Your task to perform on an android device: Go to CNN.com Image 0: 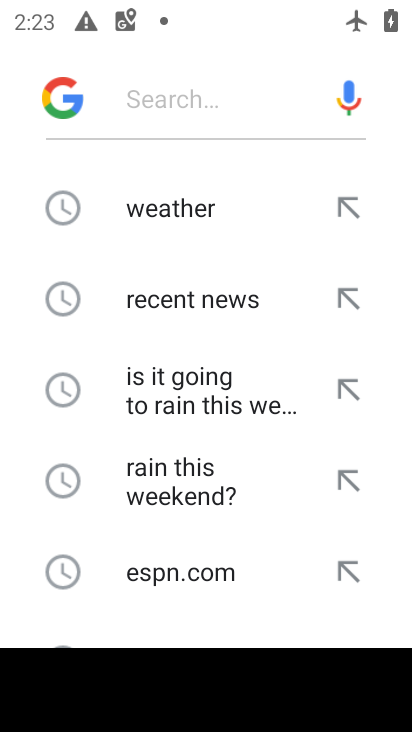
Step 0: press home button
Your task to perform on an android device: Go to CNN.com Image 1: 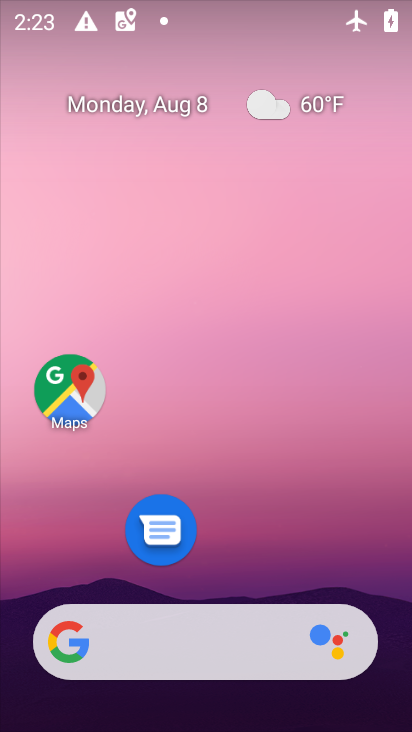
Step 1: drag from (235, 418) to (209, 115)
Your task to perform on an android device: Go to CNN.com Image 2: 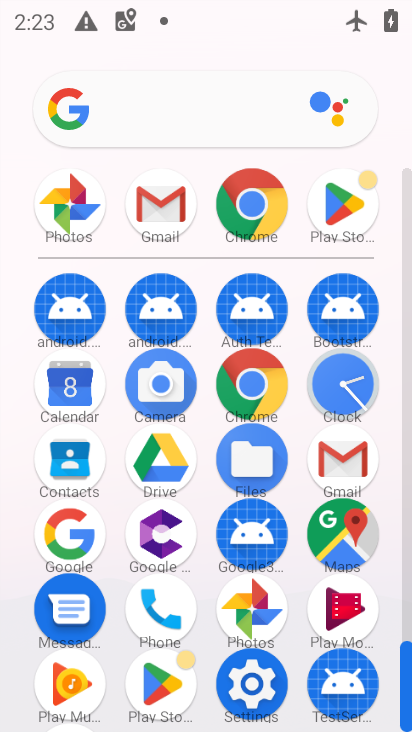
Step 2: click (262, 385)
Your task to perform on an android device: Go to CNN.com Image 3: 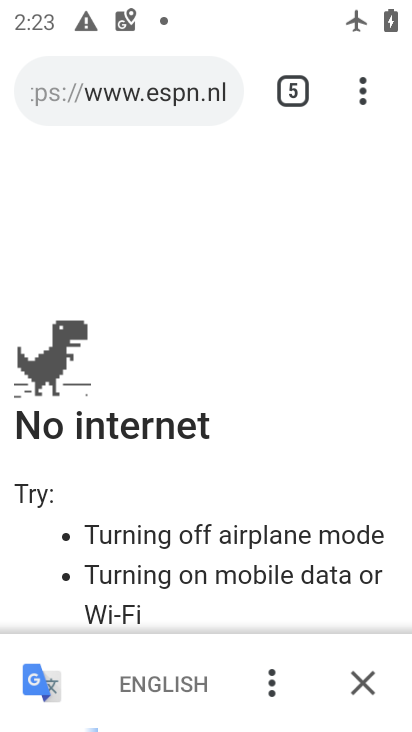
Step 3: drag from (359, 98) to (81, 170)
Your task to perform on an android device: Go to CNN.com Image 4: 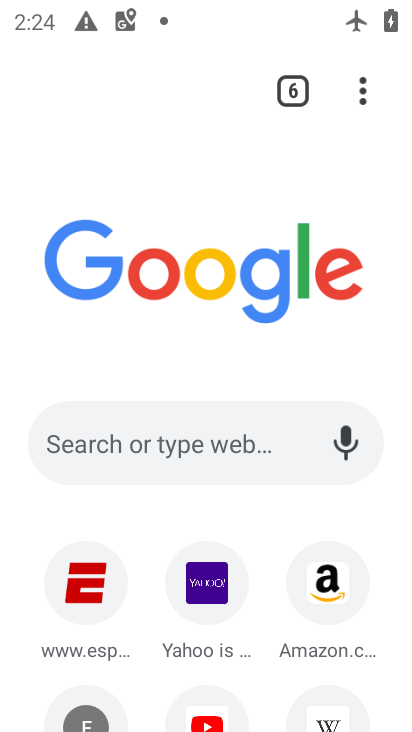
Step 4: drag from (212, 569) to (197, 216)
Your task to perform on an android device: Go to CNN.com Image 5: 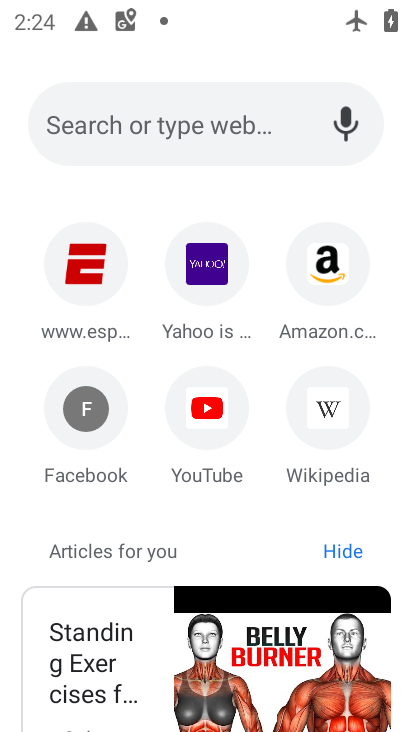
Step 5: click (226, 128)
Your task to perform on an android device: Go to CNN.com Image 6: 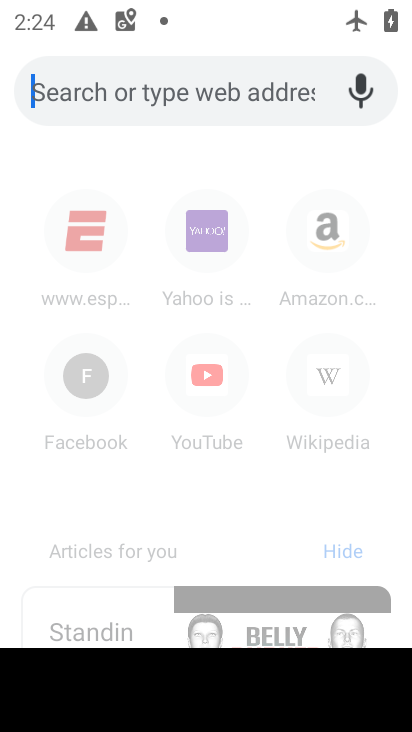
Step 6: type "CNN.com"
Your task to perform on an android device: Go to CNN.com Image 7: 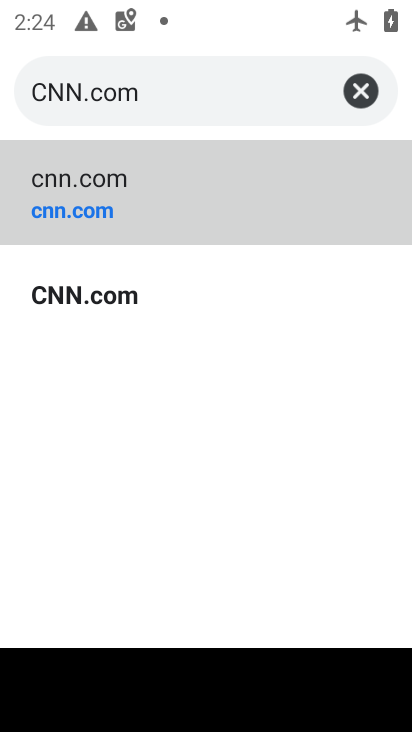
Step 7: click (68, 197)
Your task to perform on an android device: Go to CNN.com Image 8: 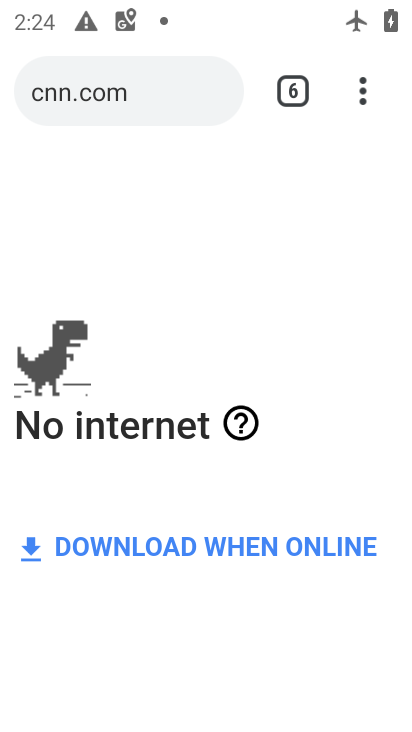
Step 8: task complete